Your task to perform on an android device: turn off priority inbox in the gmail app Image 0: 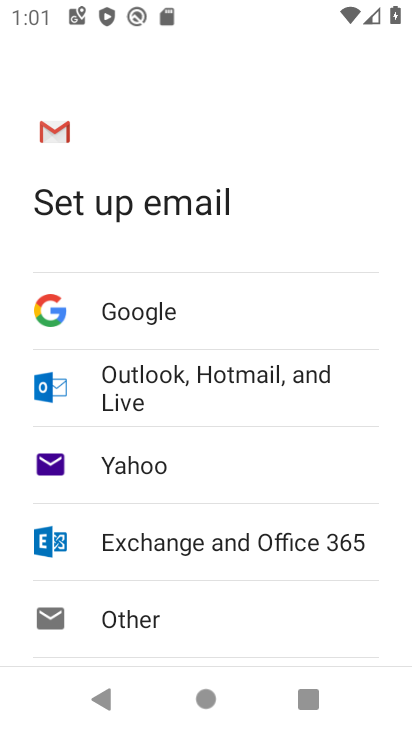
Step 0: press back button
Your task to perform on an android device: turn off priority inbox in the gmail app Image 1: 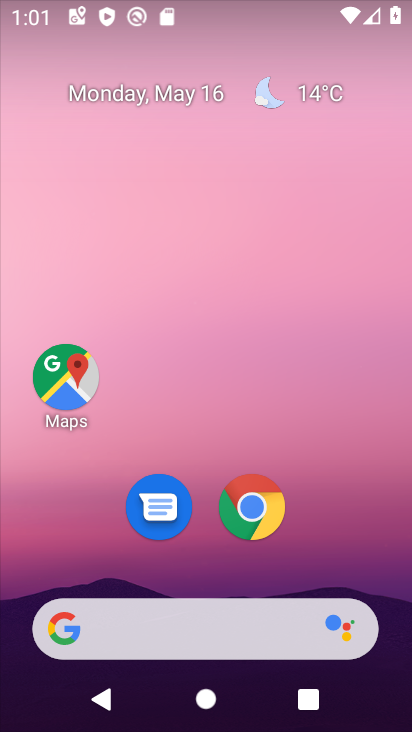
Step 1: drag from (55, 507) to (270, 45)
Your task to perform on an android device: turn off priority inbox in the gmail app Image 2: 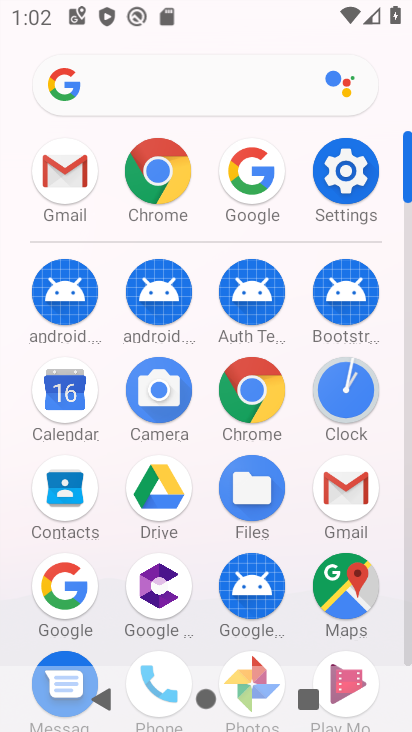
Step 2: click (353, 493)
Your task to perform on an android device: turn off priority inbox in the gmail app Image 3: 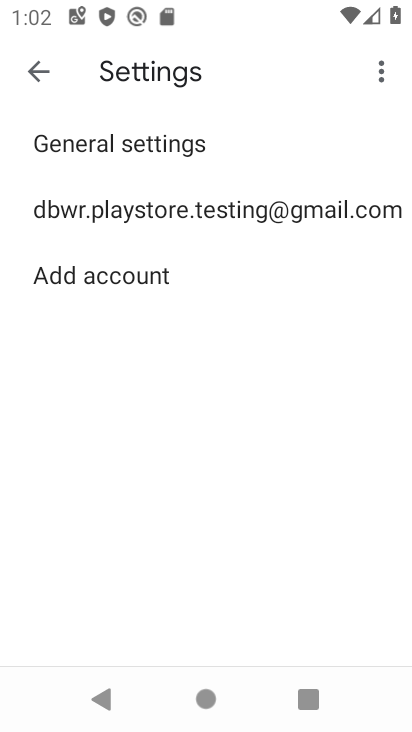
Step 3: click (323, 211)
Your task to perform on an android device: turn off priority inbox in the gmail app Image 4: 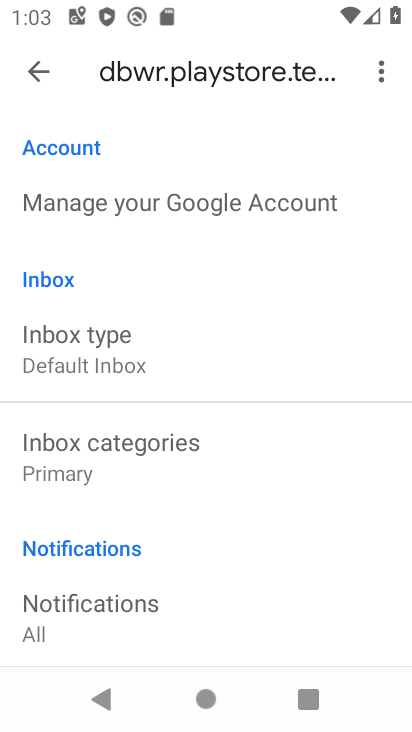
Step 4: click (55, 373)
Your task to perform on an android device: turn off priority inbox in the gmail app Image 5: 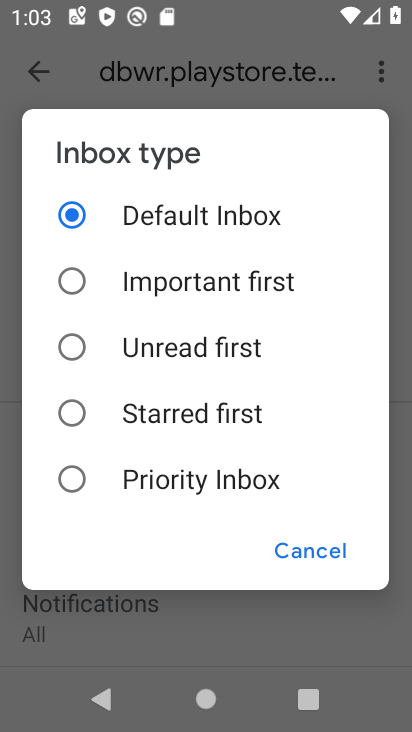
Step 5: task complete